Your task to perform on an android device: set an alarm Image 0: 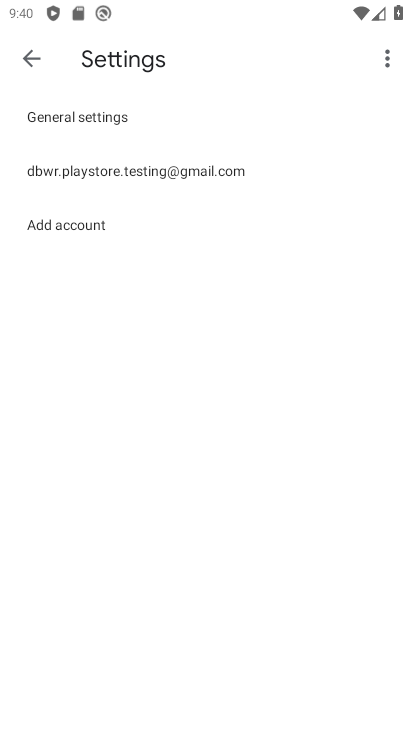
Step 0: press home button
Your task to perform on an android device: set an alarm Image 1: 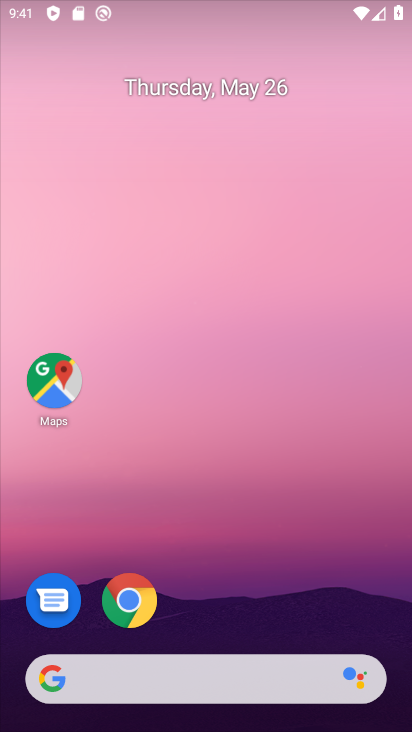
Step 1: drag from (248, 421) to (227, 122)
Your task to perform on an android device: set an alarm Image 2: 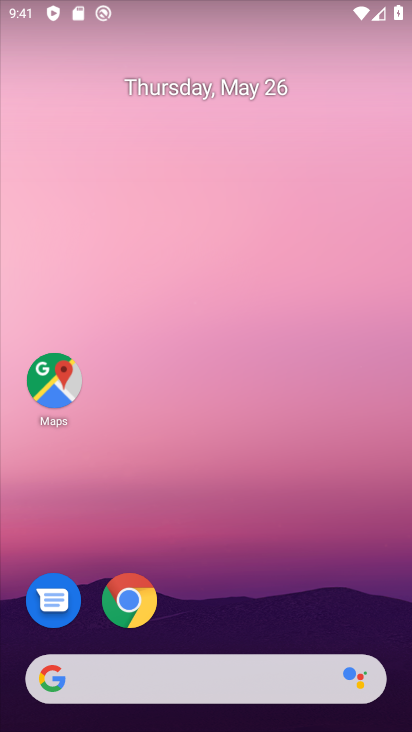
Step 2: drag from (273, 440) to (279, 65)
Your task to perform on an android device: set an alarm Image 3: 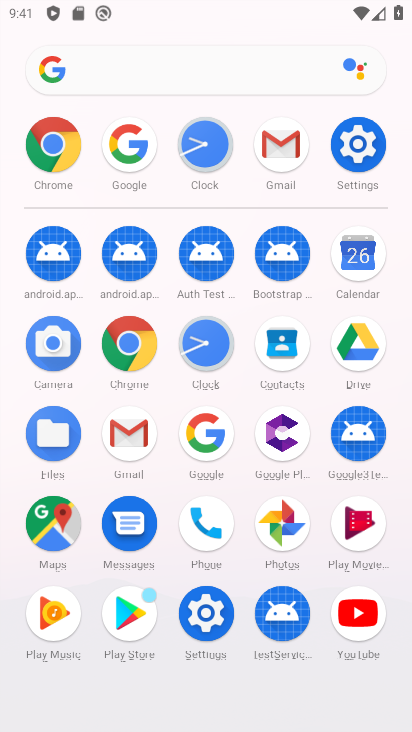
Step 3: click (198, 347)
Your task to perform on an android device: set an alarm Image 4: 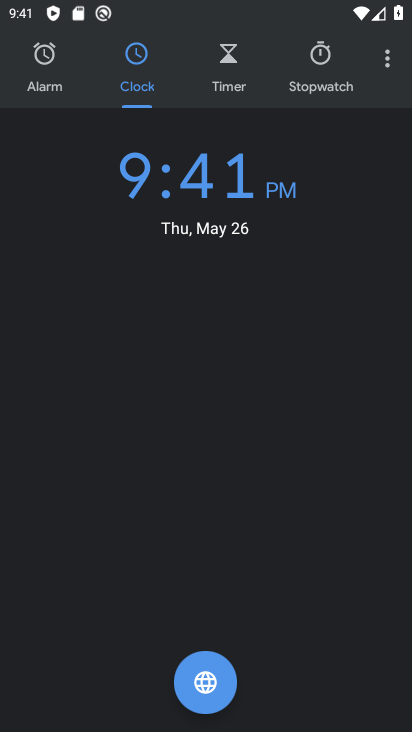
Step 4: click (58, 94)
Your task to perform on an android device: set an alarm Image 5: 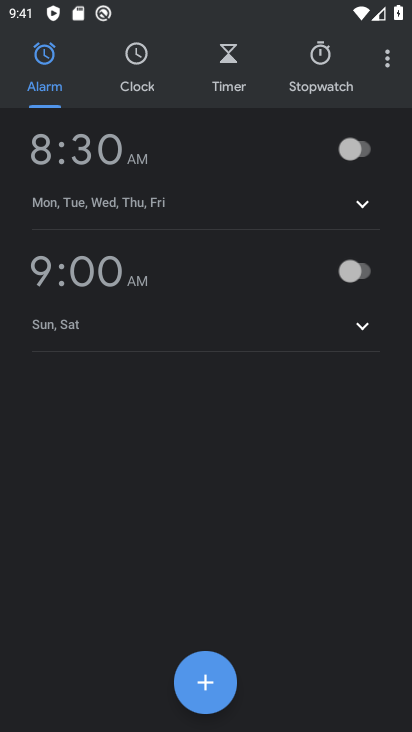
Step 5: click (200, 668)
Your task to perform on an android device: set an alarm Image 6: 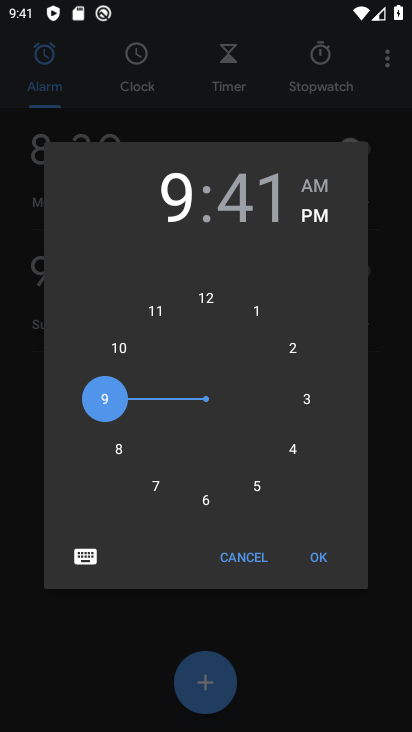
Step 6: click (316, 559)
Your task to perform on an android device: set an alarm Image 7: 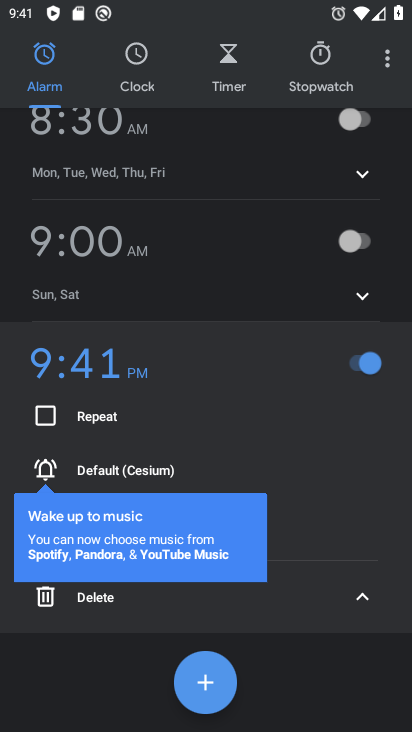
Step 7: task complete